Your task to perform on an android device: toggle airplane mode Image 0: 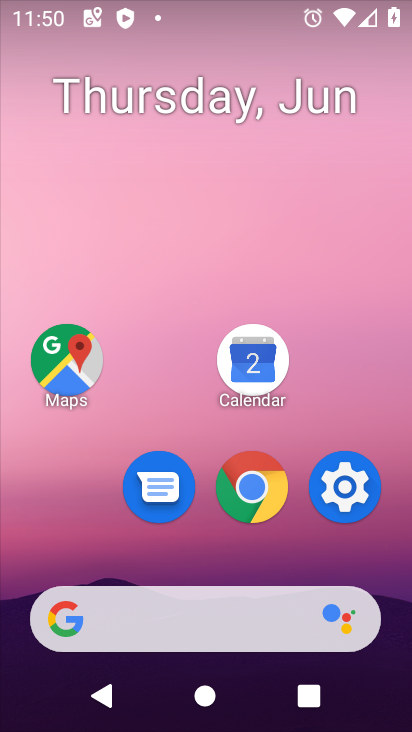
Step 0: click (344, 479)
Your task to perform on an android device: toggle airplane mode Image 1: 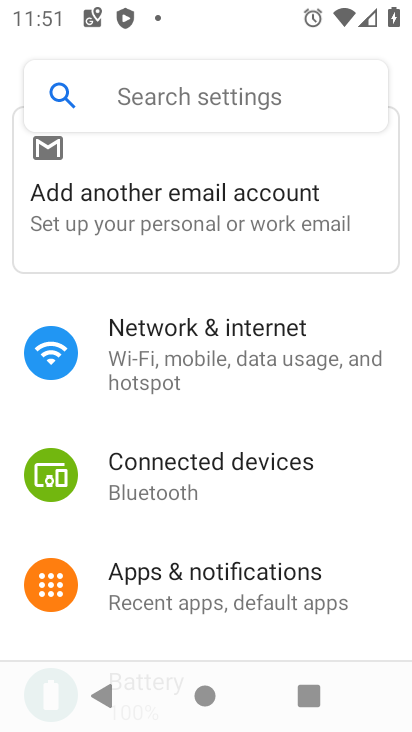
Step 1: click (220, 346)
Your task to perform on an android device: toggle airplane mode Image 2: 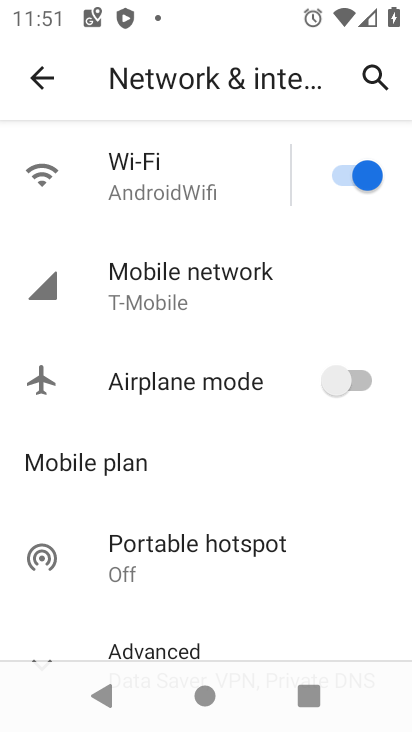
Step 2: task complete